Your task to perform on an android device: uninstall "Google Find My Device" Image 0: 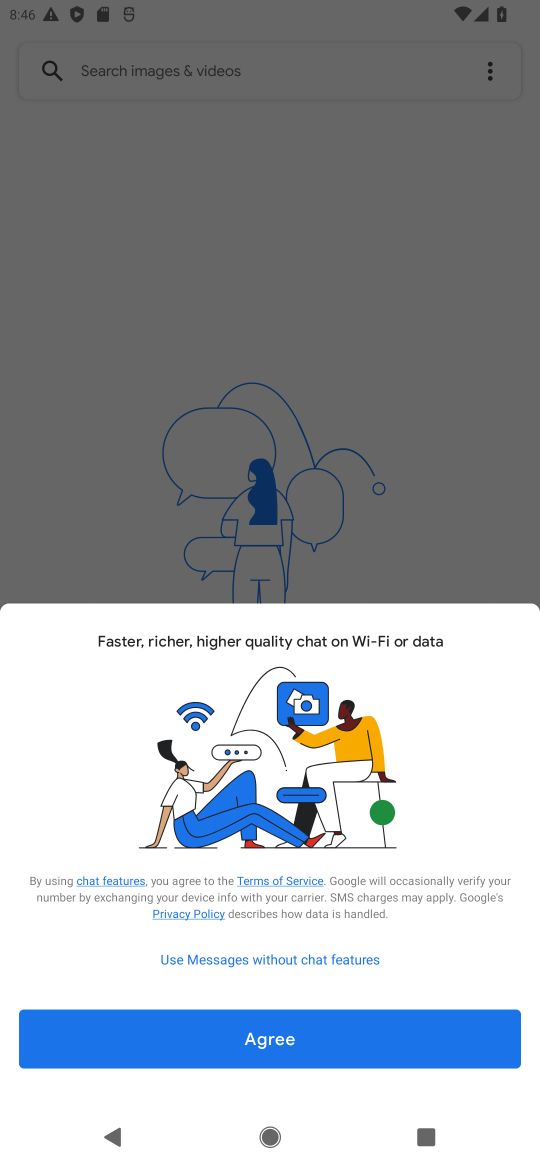
Step 0: press home button
Your task to perform on an android device: uninstall "Google Find My Device" Image 1: 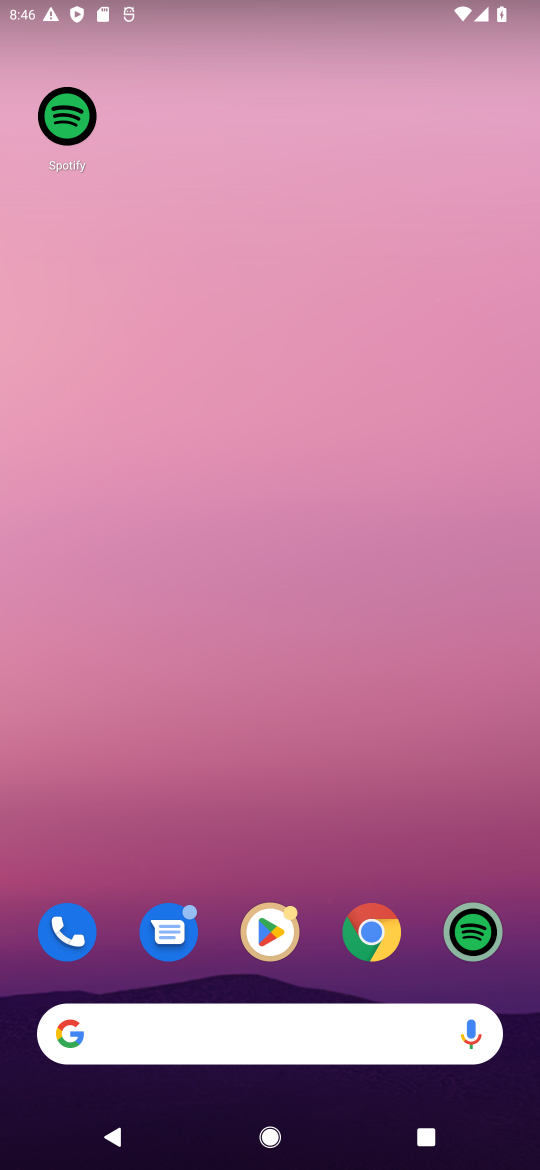
Step 1: click (282, 939)
Your task to perform on an android device: uninstall "Google Find My Device" Image 2: 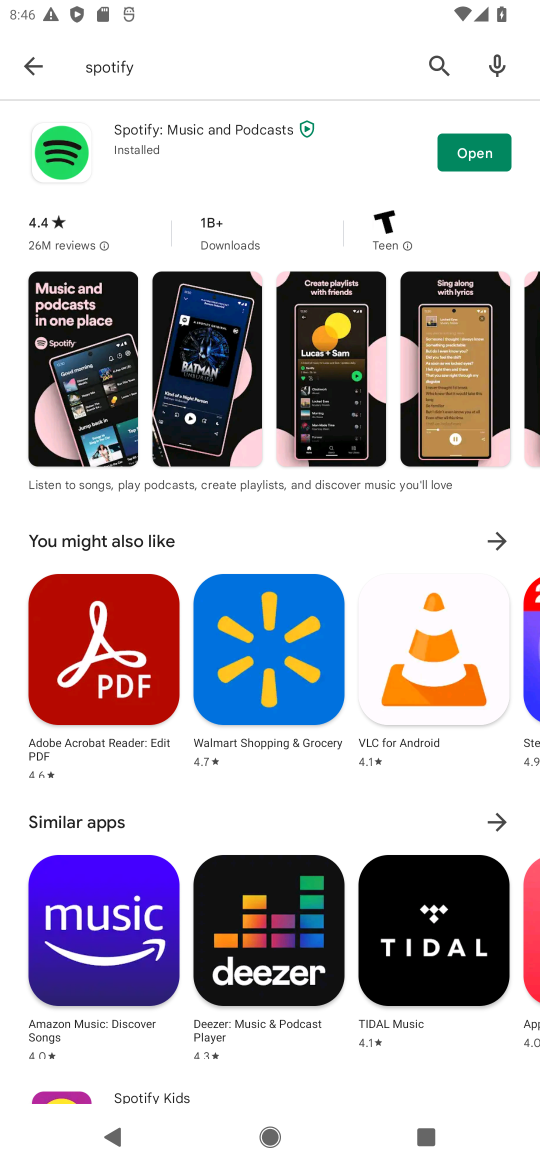
Step 2: click (444, 87)
Your task to perform on an android device: uninstall "Google Find My Device" Image 3: 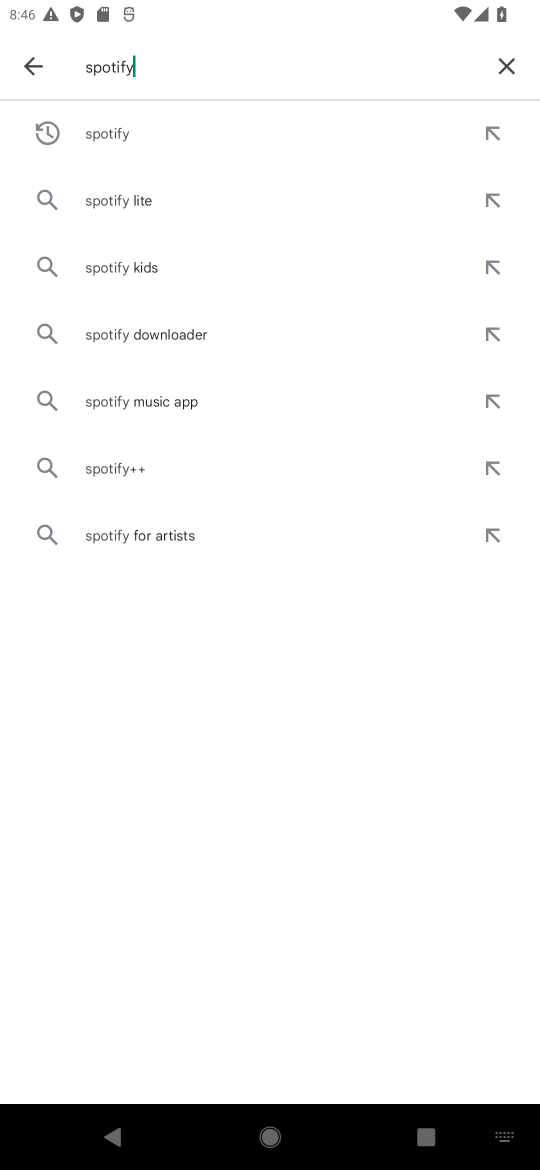
Step 3: click (515, 66)
Your task to perform on an android device: uninstall "Google Find My Device" Image 4: 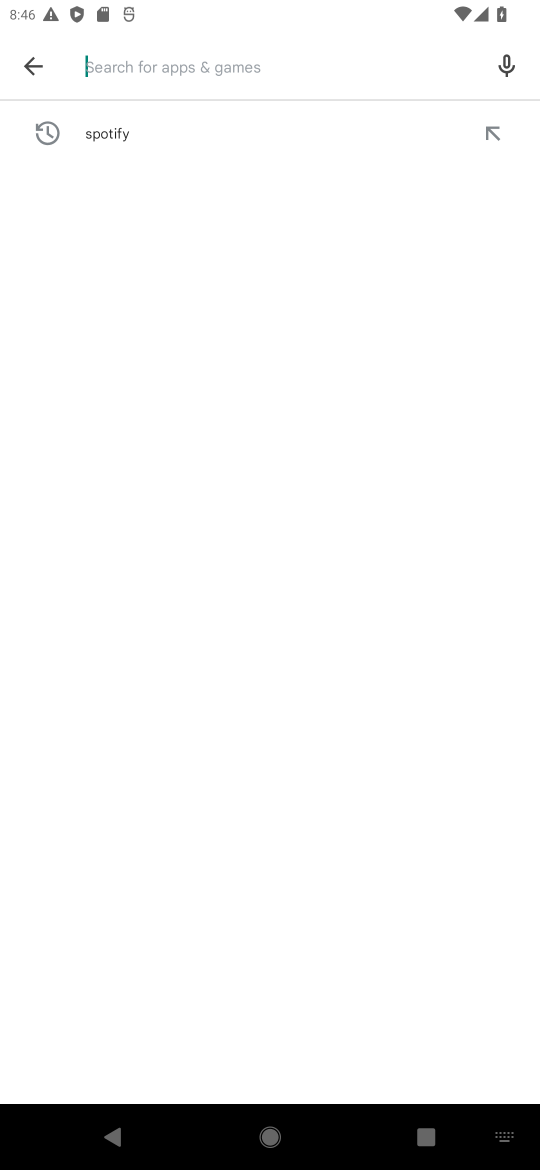
Step 4: type "find my devices"
Your task to perform on an android device: uninstall "Google Find My Device" Image 5: 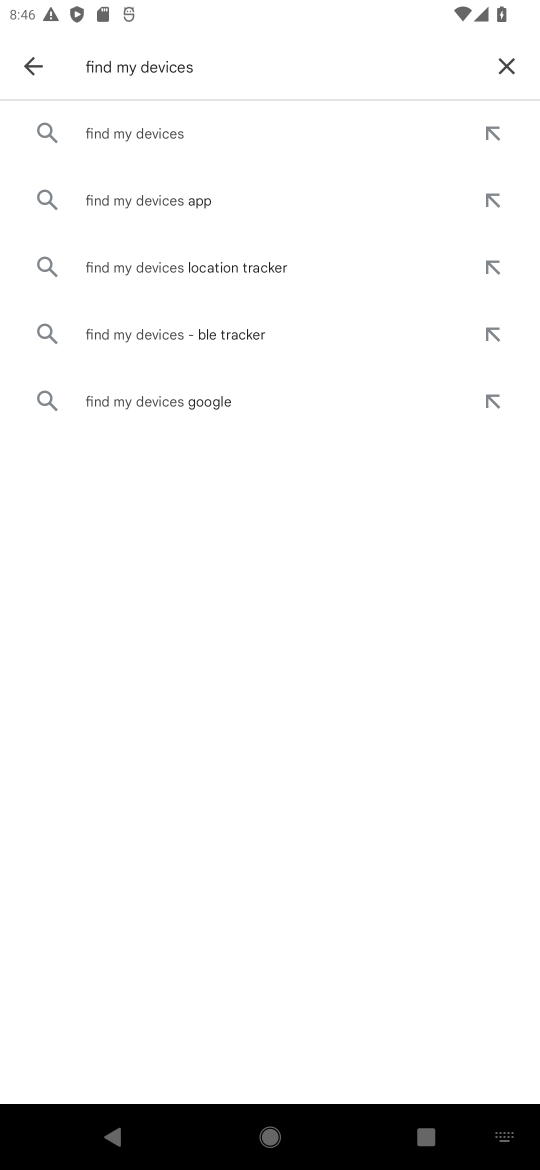
Step 5: click (114, 128)
Your task to perform on an android device: uninstall "Google Find My Device" Image 6: 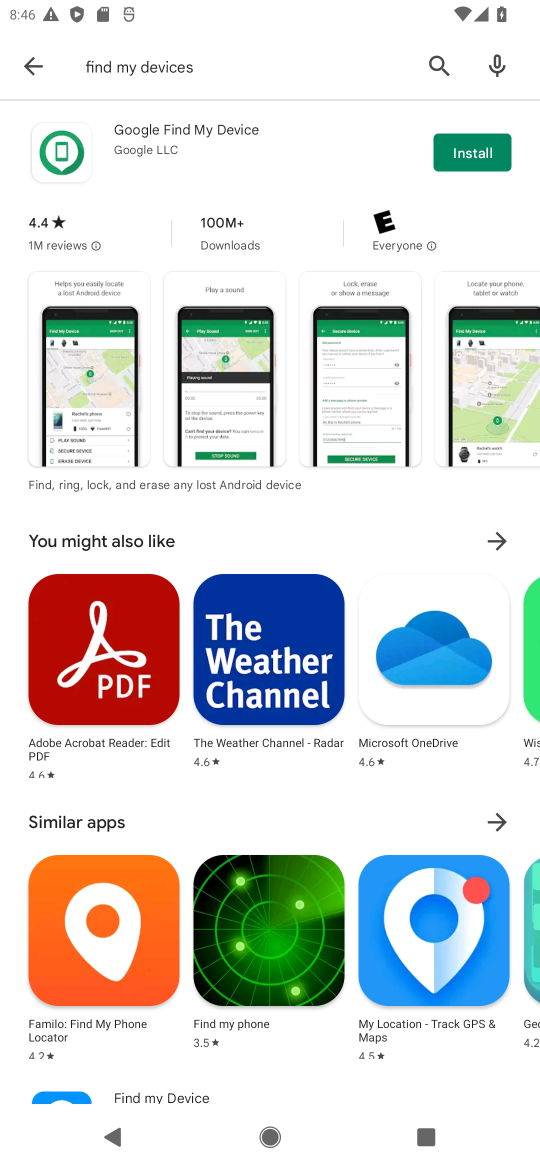
Step 6: click (465, 162)
Your task to perform on an android device: uninstall "Google Find My Device" Image 7: 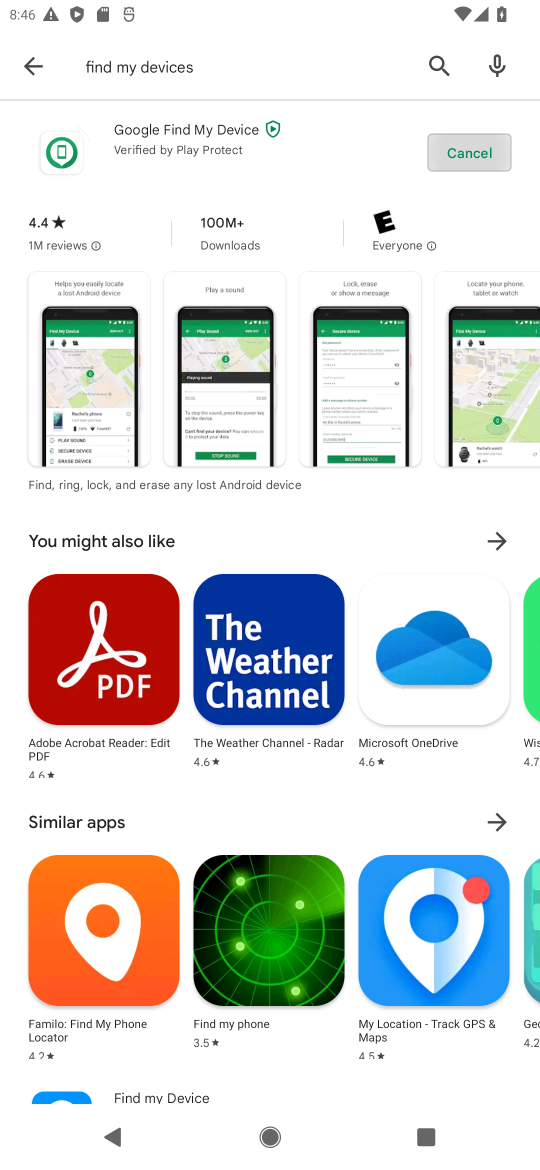
Step 7: task complete